Your task to perform on an android device: Open eBay Image 0: 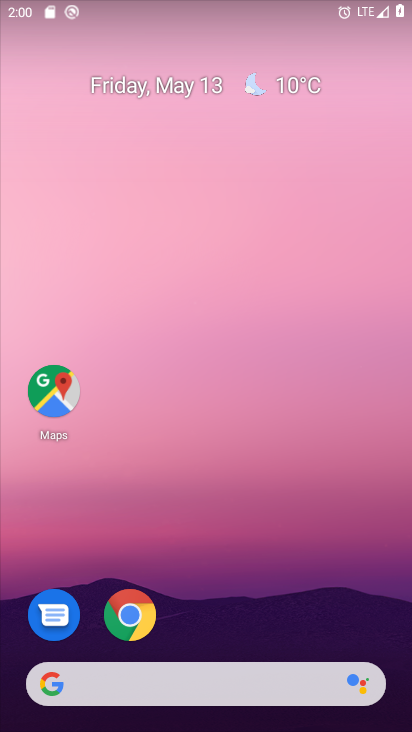
Step 0: click (298, 676)
Your task to perform on an android device: Open eBay Image 1: 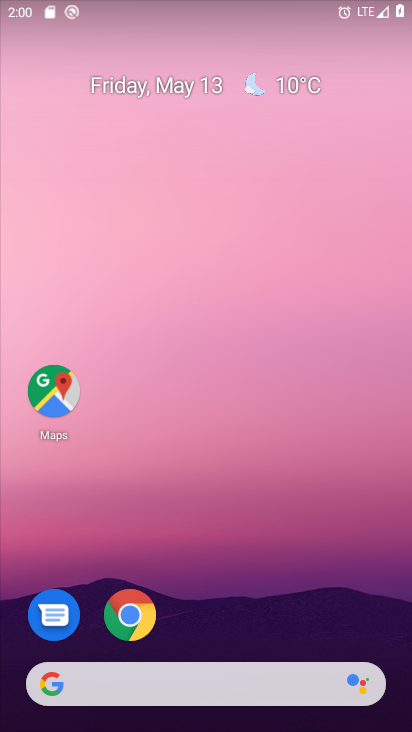
Step 1: click (290, 685)
Your task to perform on an android device: Open eBay Image 2: 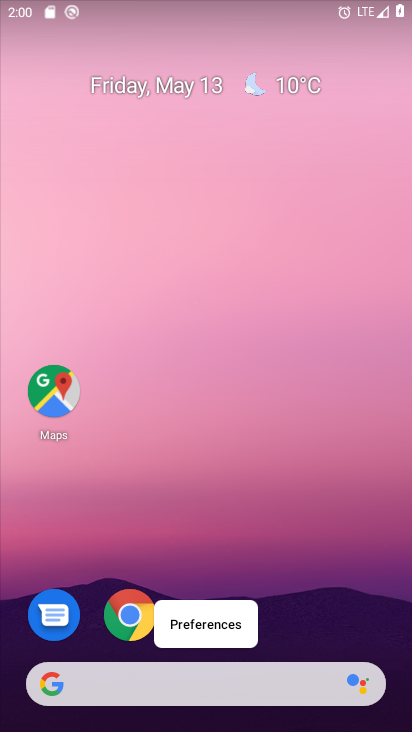
Step 2: click (214, 698)
Your task to perform on an android device: Open eBay Image 3: 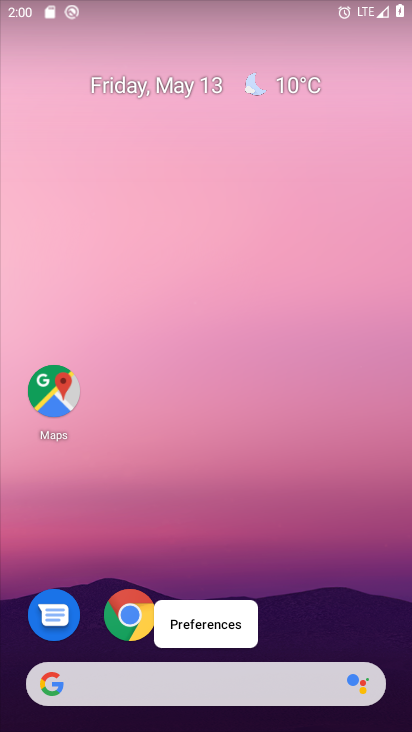
Step 3: click (219, 684)
Your task to perform on an android device: Open eBay Image 4: 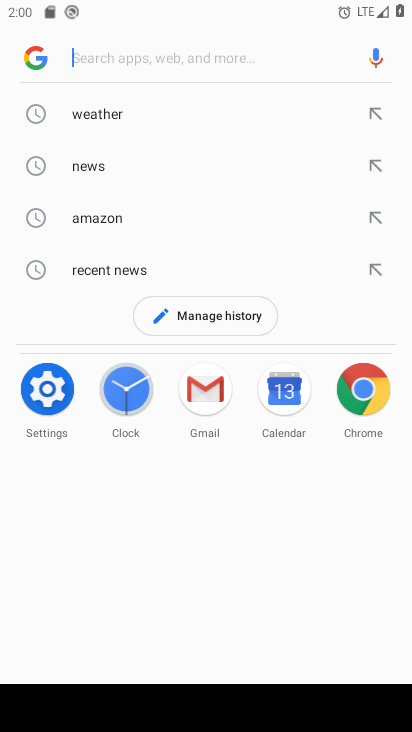
Step 4: type "ebay"
Your task to perform on an android device: Open eBay Image 5: 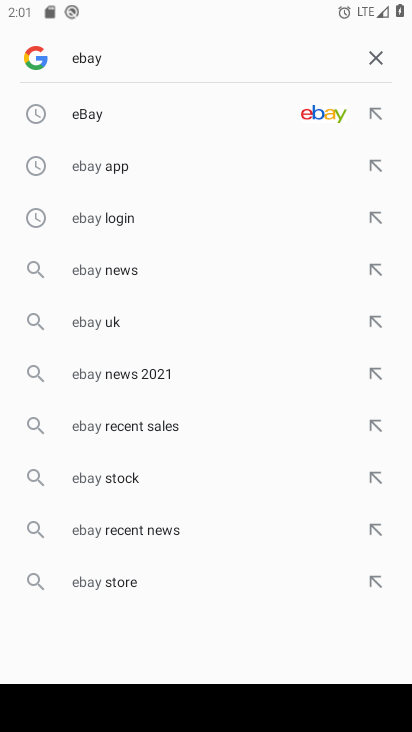
Step 5: click (90, 109)
Your task to perform on an android device: Open eBay Image 6: 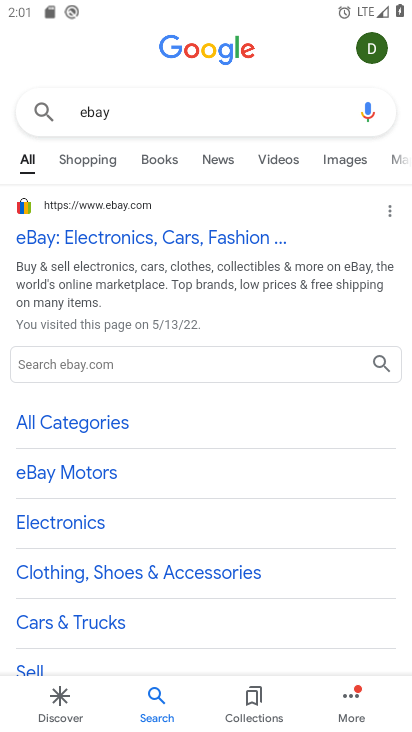
Step 6: click (41, 235)
Your task to perform on an android device: Open eBay Image 7: 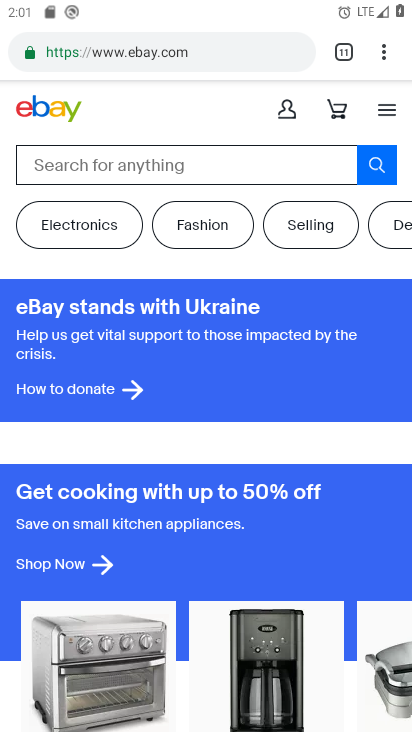
Step 7: task complete